Your task to perform on an android device: Open battery settings Image 0: 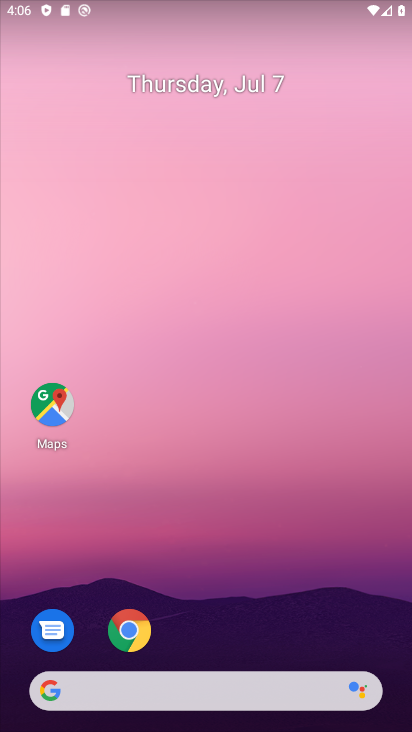
Step 0: drag from (275, 3) to (302, 416)
Your task to perform on an android device: Open battery settings Image 1: 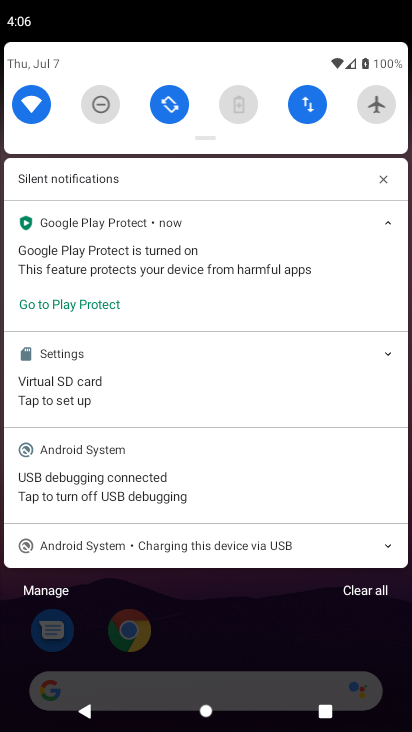
Step 1: drag from (272, 64) to (267, 462)
Your task to perform on an android device: Open battery settings Image 2: 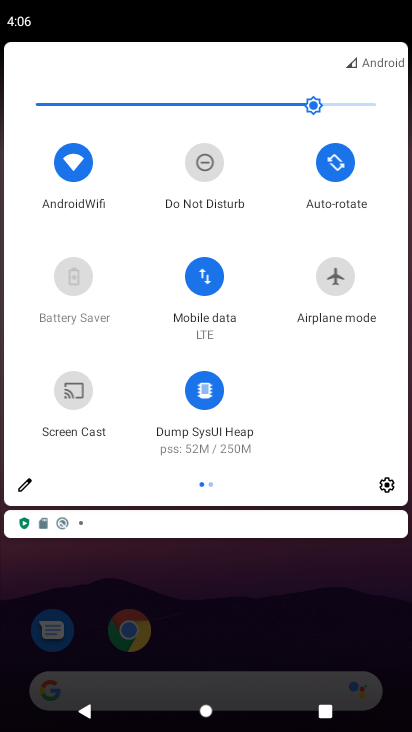
Step 2: click (386, 483)
Your task to perform on an android device: Open battery settings Image 3: 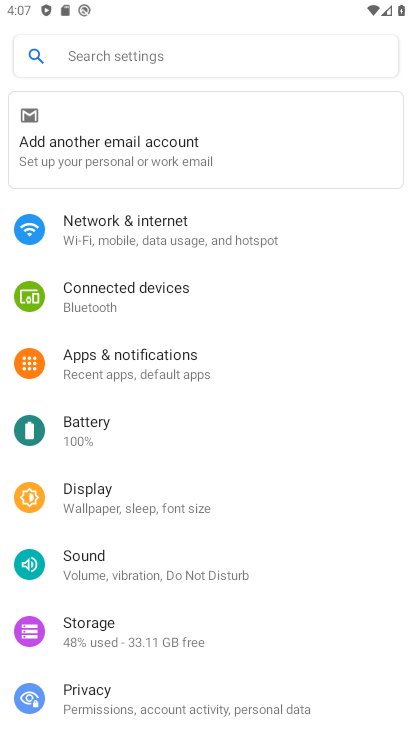
Step 3: click (79, 440)
Your task to perform on an android device: Open battery settings Image 4: 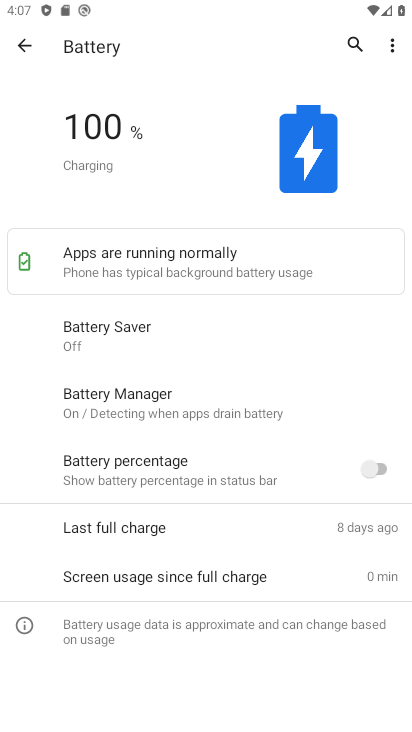
Step 4: task complete